Your task to perform on an android device: set the timer Image 0: 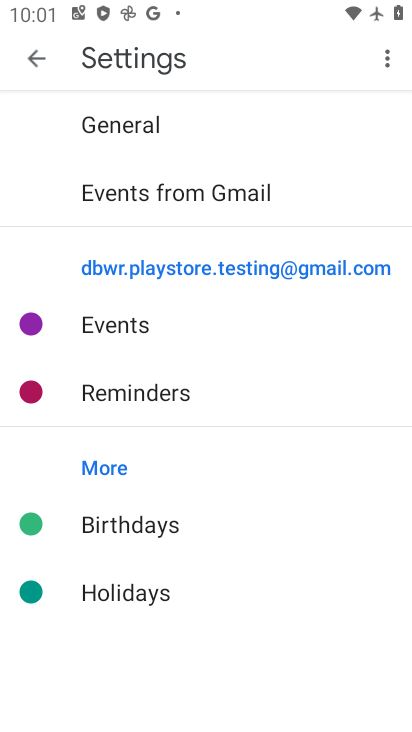
Step 0: press back button
Your task to perform on an android device: set the timer Image 1: 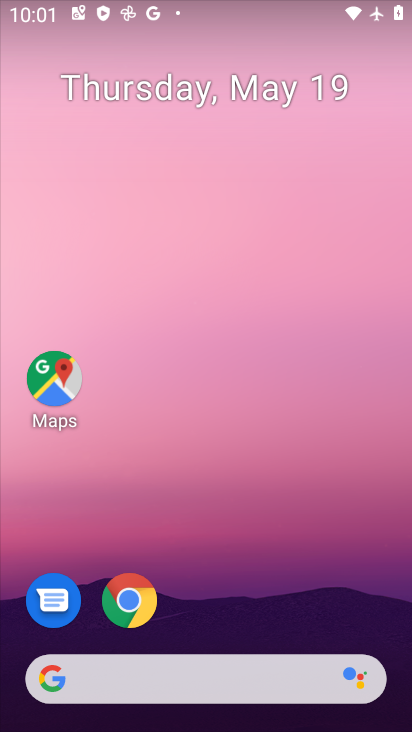
Step 1: drag from (271, 554) to (245, 51)
Your task to perform on an android device: set the timer Image 2: 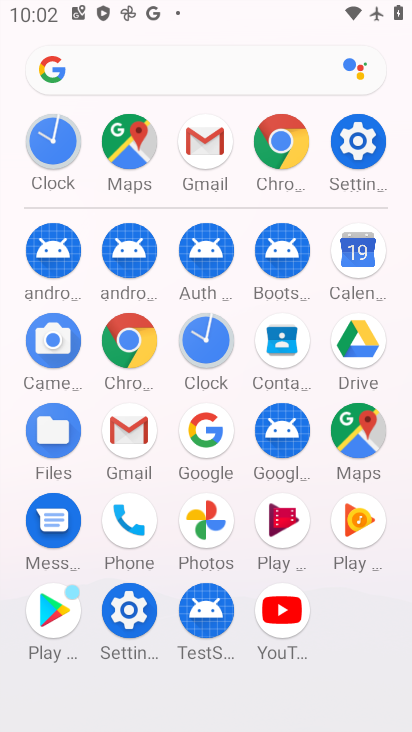
Step 2: click (202, 334)
Your task to perform on an android device: set the timer Image 3: 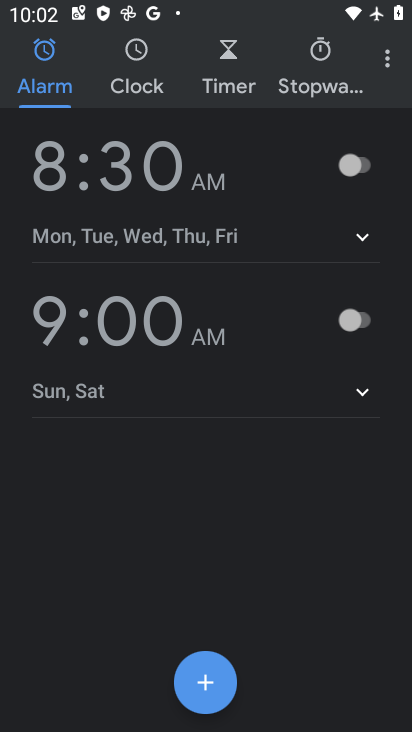
Step 3: click (240, 69)
Your task to perform on an android device: set the timer Image 4: 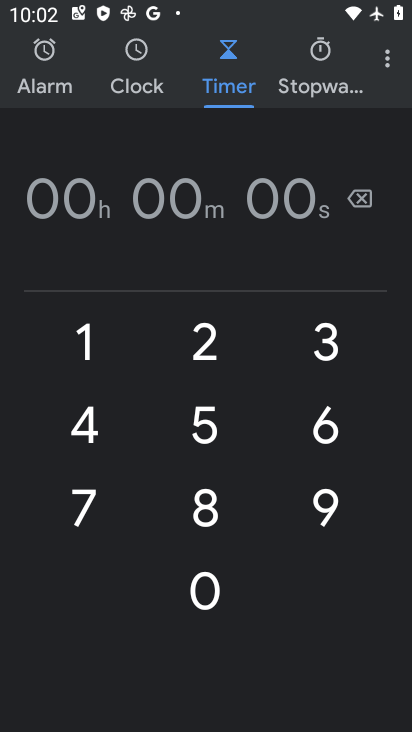
Step 4: click (188, 334)
Your task to perform on an android device: set the timer Image 5: 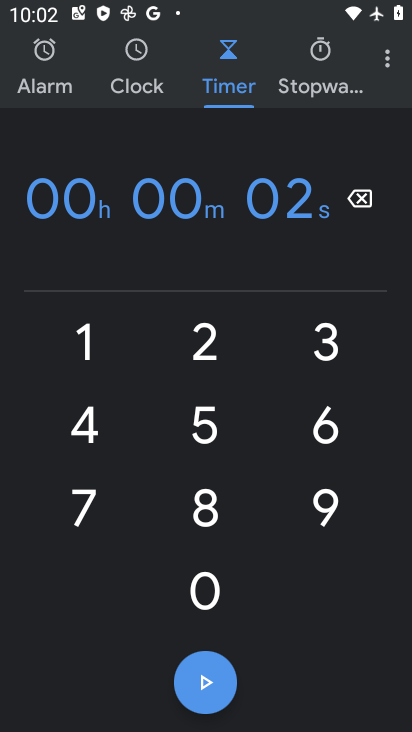
Step 5: click (74, 415)
Your task to perform on an android device: set the timer Image 6: 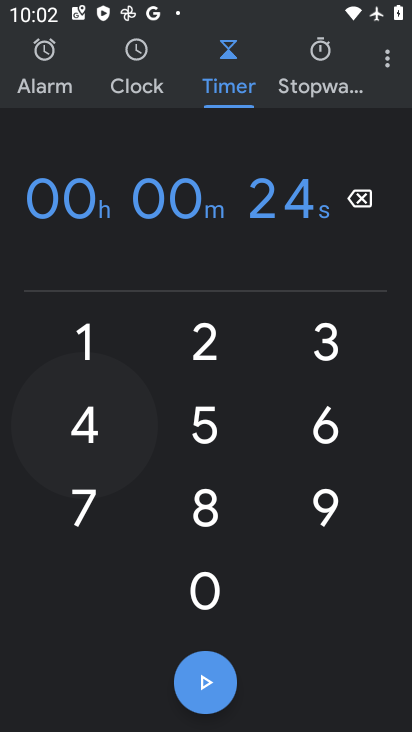
Step 6: click (195, 412)
Your task to perform on an android device: set the timer Image 7: 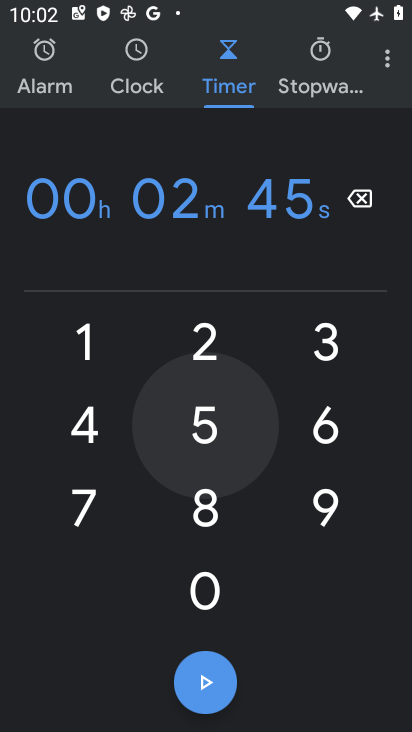
Step 7: click (320, 421)
Your task to perform on an android device: set the timer Image 8: 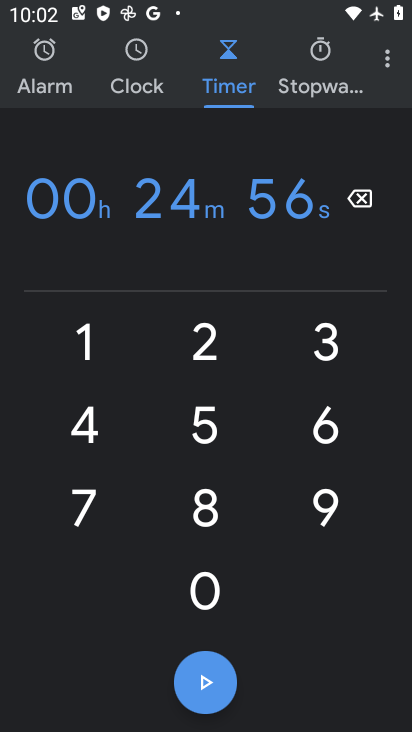
Step 8: click (212, 669)
Your task to perform on an android device: set the timer Image 9: 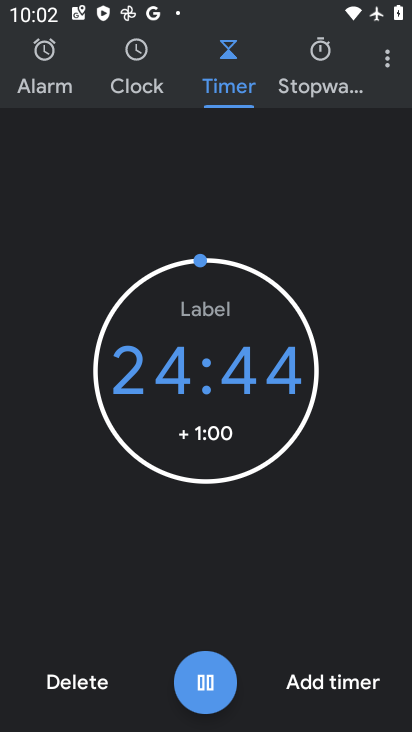
Step 9: task complete